Your task to perform on an android device: turn off data saver in the chrome app Image 0: 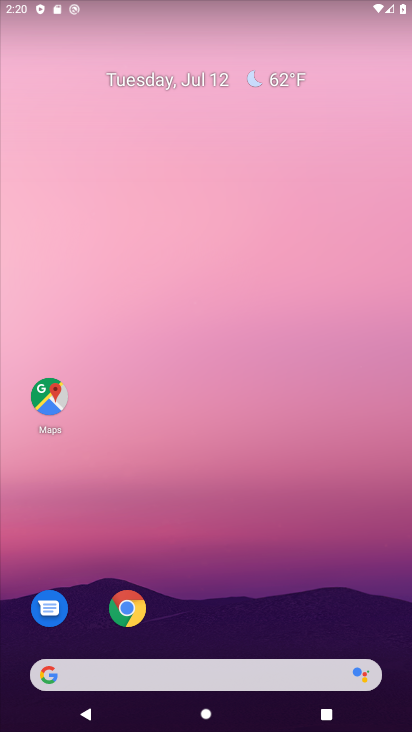
Step 0: click (127, 609)
Your task to perform on an android device: turn off data saver in the chrome app Image 1: 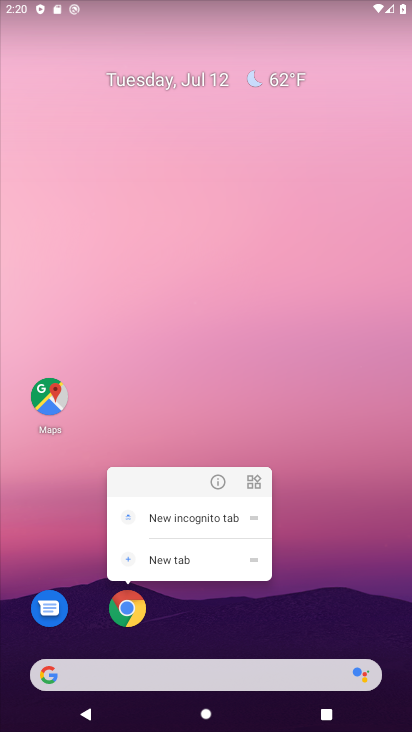
Step 1: click (127, 609)
Your task to perform on an android device: turn off data saver in the chrome app Image 2: 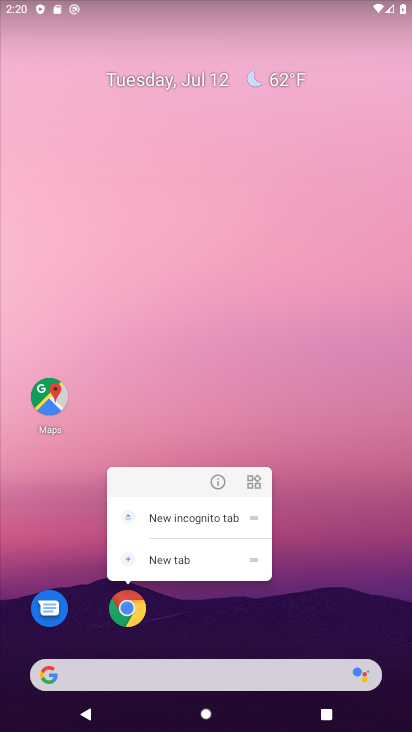
Step 2: click (127, 609)
Your task to perform on an android device: turn off data saver in the chrome app Image 3: 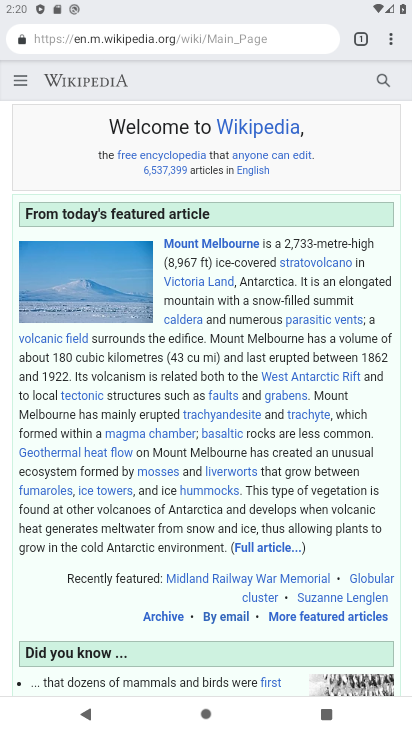
Step 3: drag from (390, 39) to (264, 475)
Your task to perform on an android device: turn off data saver in the chrome app Image 4: 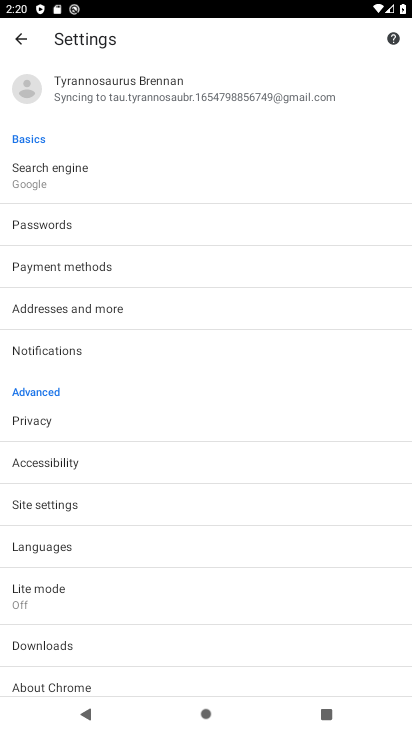
Step 4: click (73, 593)
Your task to perform on an android device: turn off data saver in the chrome app Image 5: 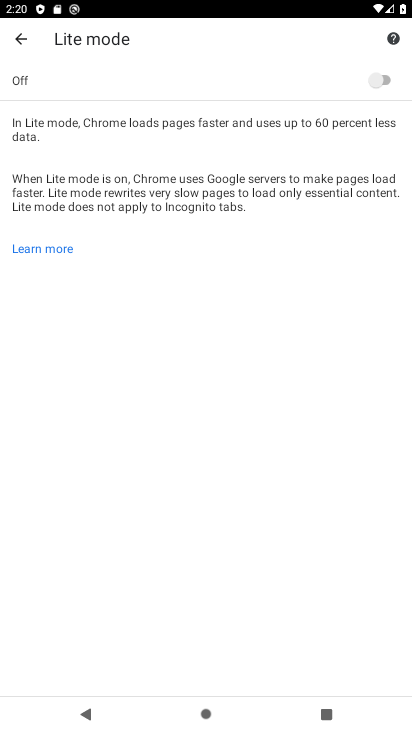
Step 5: task complete